Your task to perform on an android device: find snoozed emails in the gmail app Image 0: 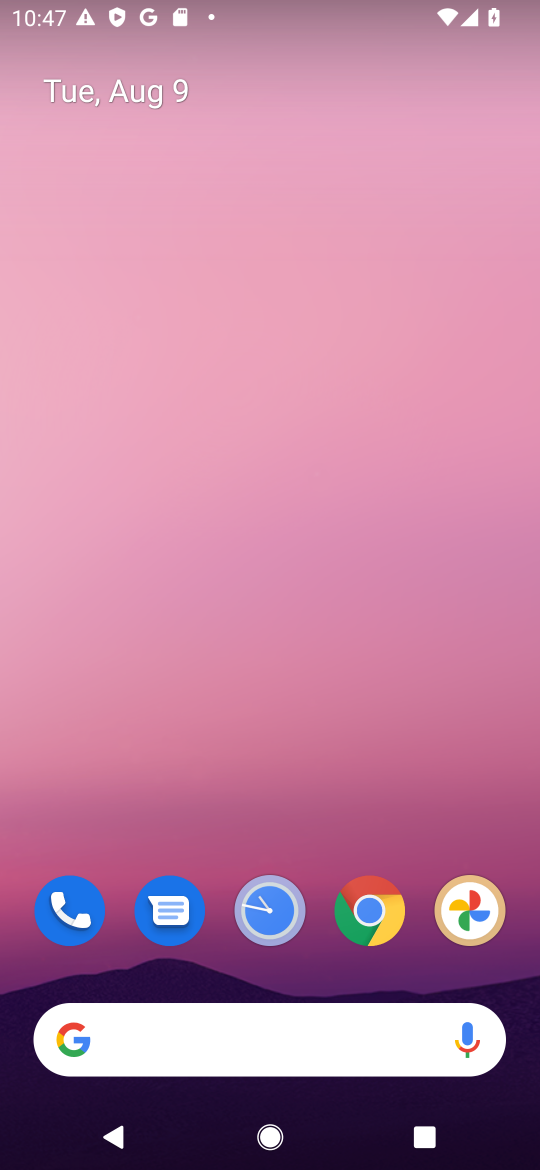
Step 0: drag from (47, 911) to (468, 60)
Your task to perform on an android device: find snoozed emails in the gmail app Image 1: 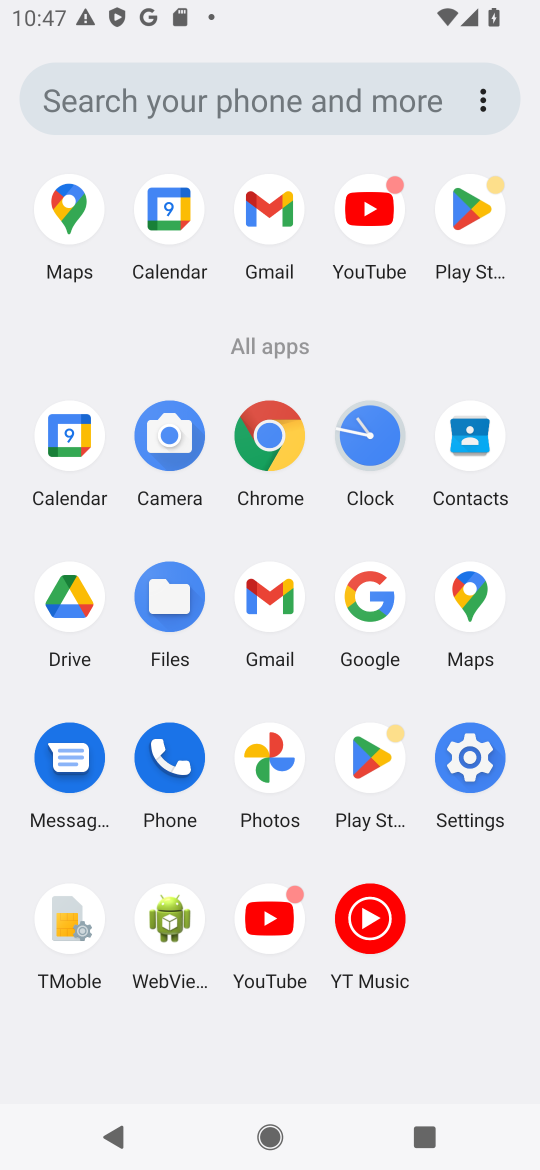
Step 1: click (266, 224)
Your task to perform on an android device: find snoozed emails in the gmail app Image 2: 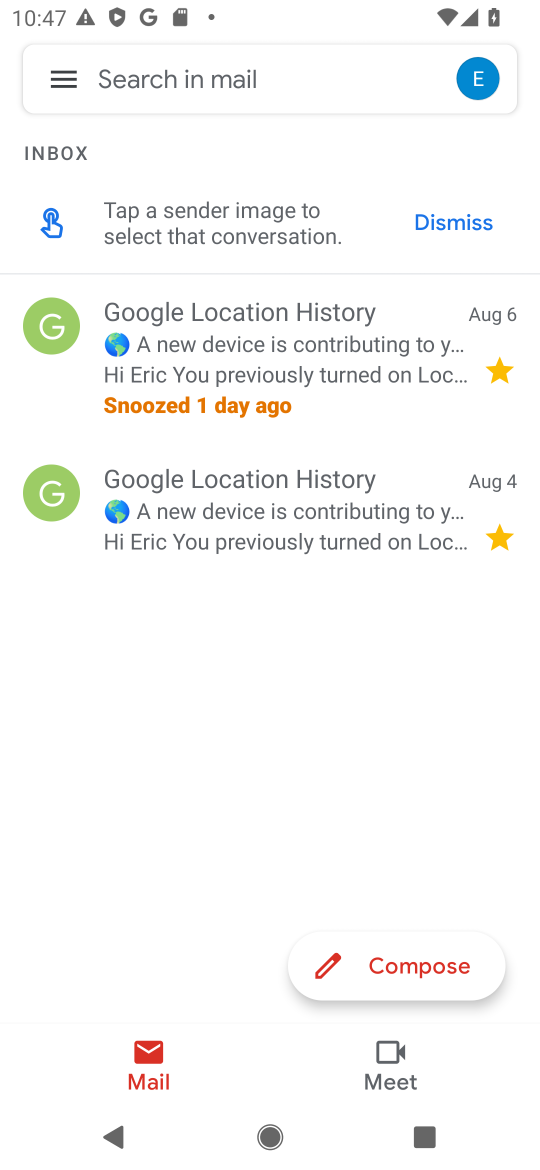
Step 2: click (70, 74)
Your task to perform on an android device: find snoozed emails in the gmail app Image 3: 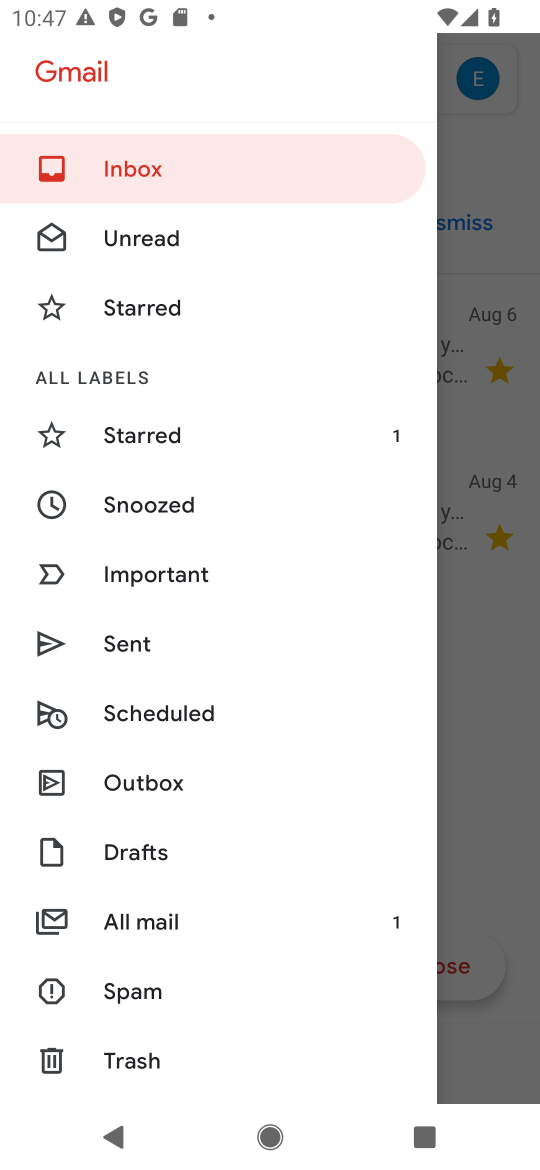
Step 3: click (170, 515)
Your task to perform on an android device: find snoozed emails in the gmail app Image 4: 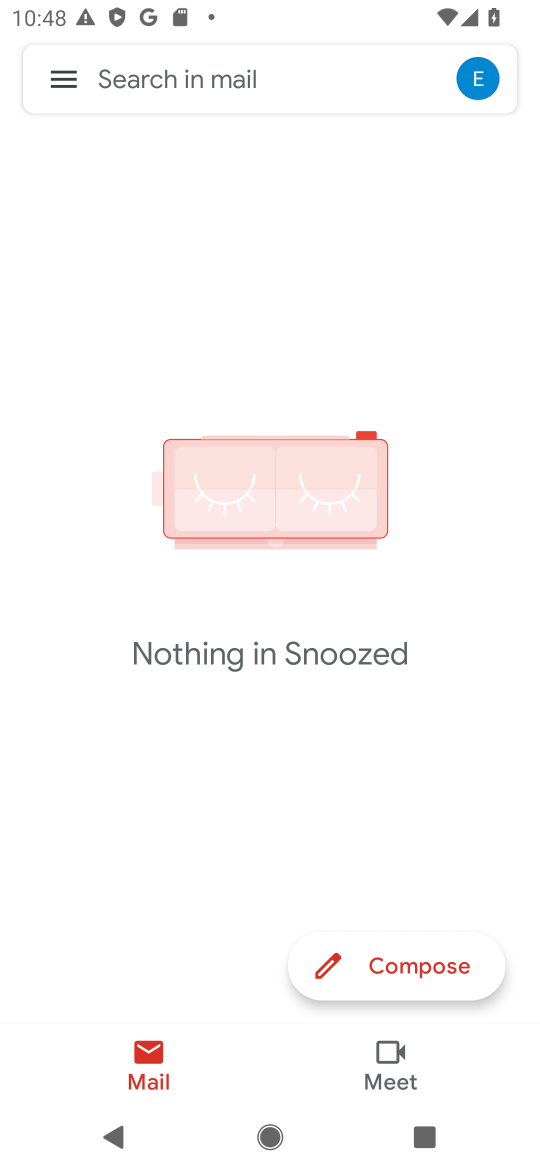
Step 4: task complete